Your task to perform on an android device: turn off location history Image 0: 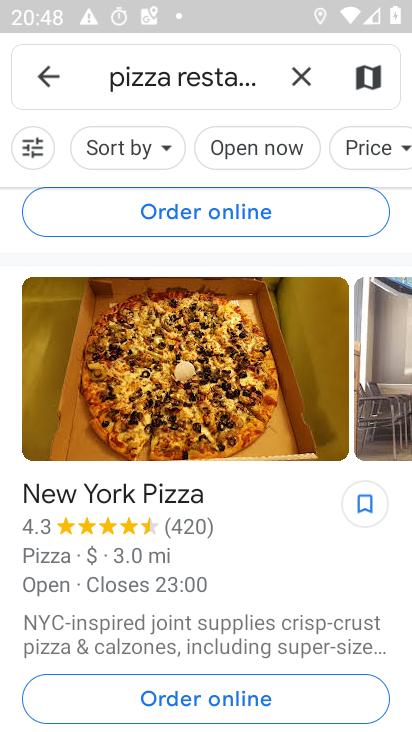
Step 0: press home button
Your task to perform on an android device: turn off location history Image 1: 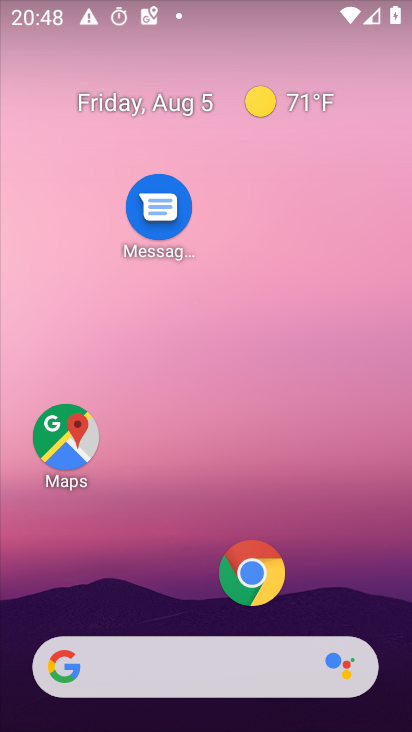
Step 1: drag from (187, 611) to (202, 70)
Your task to perform on an android device: turn off location history Image 2: 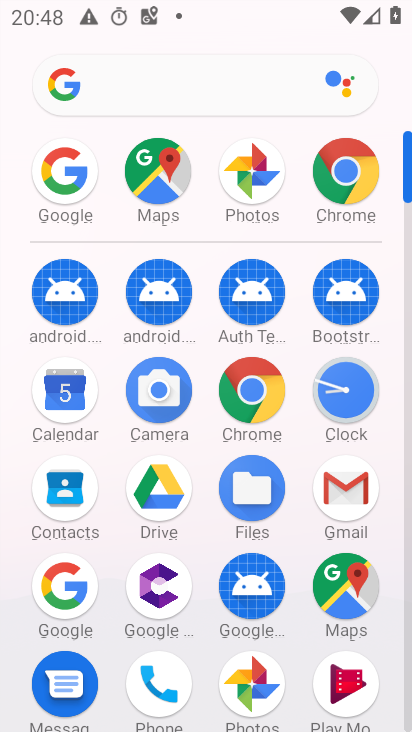
Step 2: drag from (204, 548) to (240, 53)
Your task to perform on an android device: turn off location history Image 3: 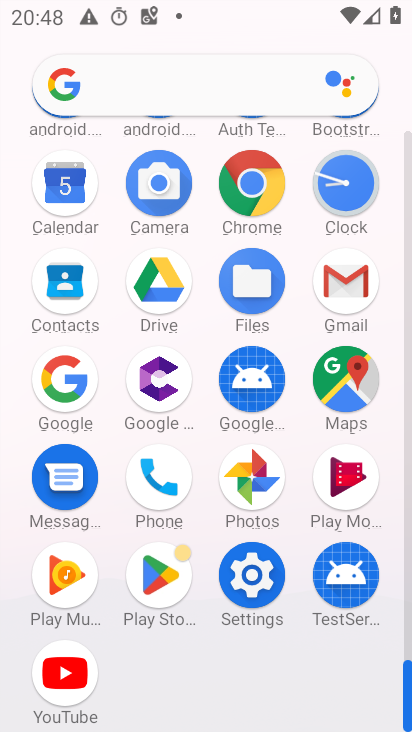
Step 3: click (247, 567)
Your task to perform on an android device: turn off location history Image 4: 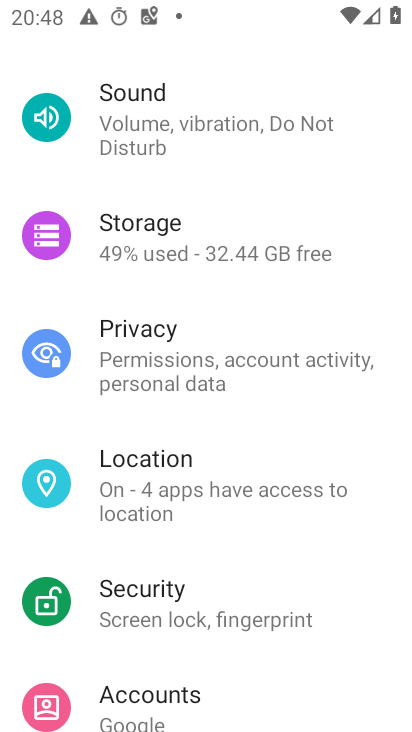
Step 4: drag from (240, 589) to (253, 84)
Your task to perform on an android device: turn off location history Image 5: 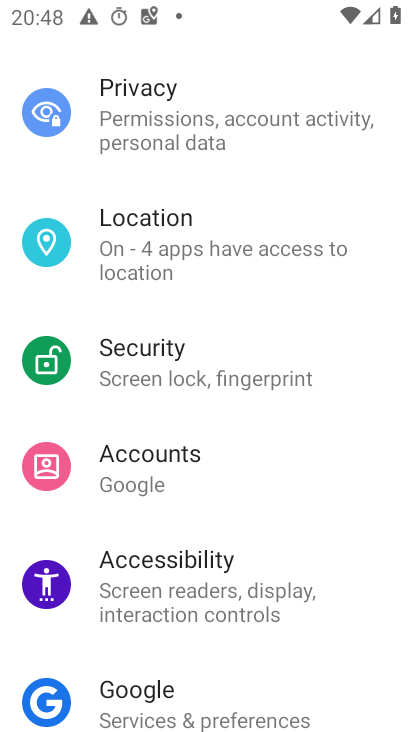
Step 5: drag from (213, 656) to (206, 58)
Your task to perform on an android device: turn off location history Image 6: 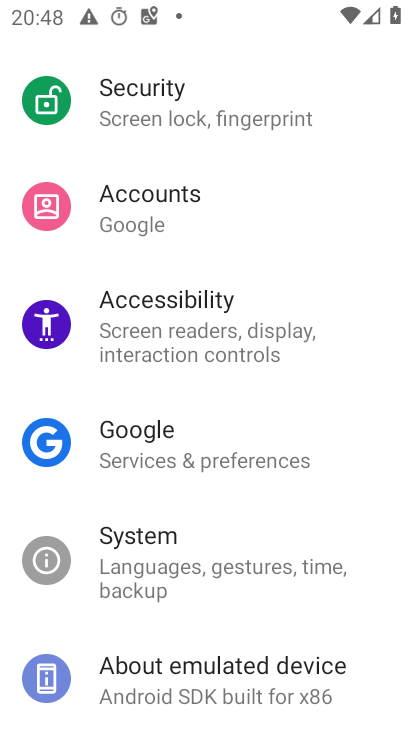
Step 6: drag from (223, 297) to (231, 420)
Your task to perform on an android device: turn off location history Image 7: 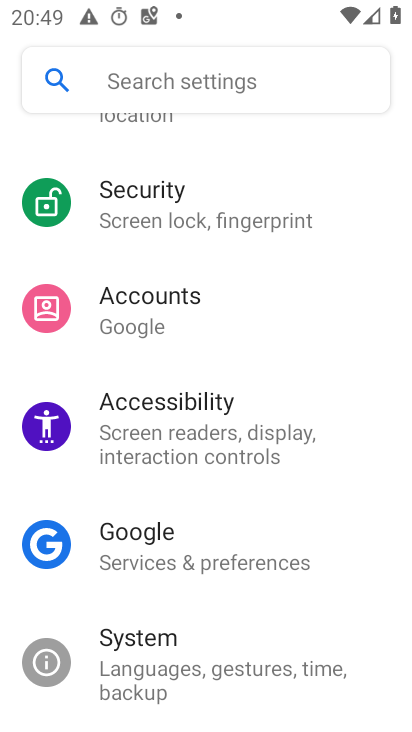
Step 7: click (182, 122)
Your task to perform on an android device: turn off location history Image 8: 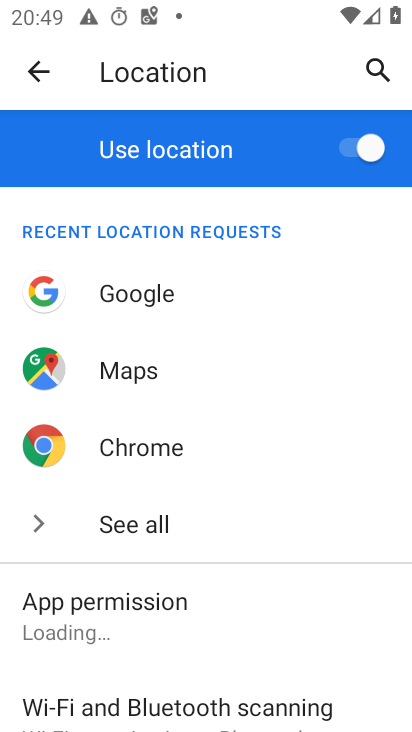
Step 8: drag from (181, 660) to (210, 175)
Your task to perform on an android device: turn off location history Image 9: 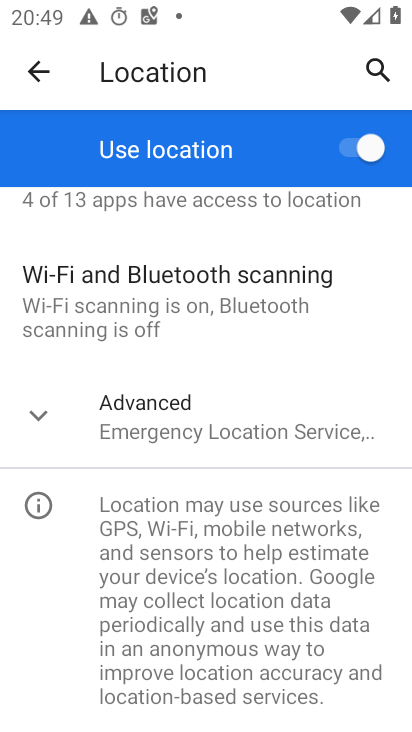
Step 9: click (41, 414)
Your task to perform on an android device: turn off location history Image 10: 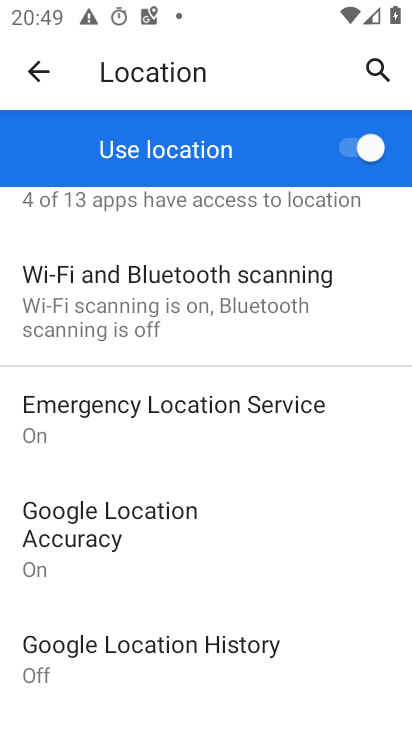
Step 10: click (79, 662)
Your task to perform on an android device: turn off location history Image 11: 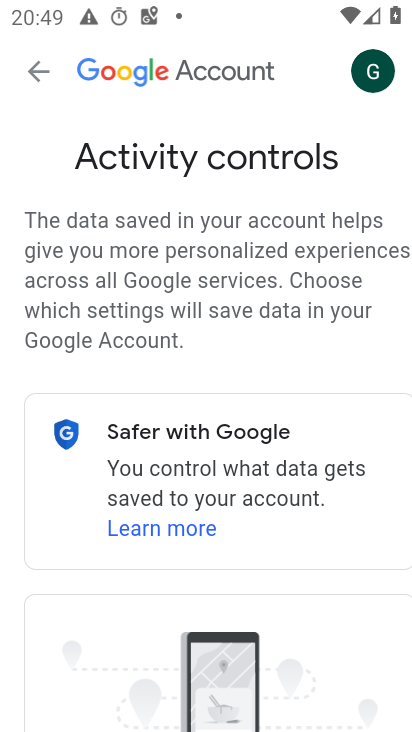
Step 11: task complete